Your task to perform on an android device: turn on sleep mode Image 0: 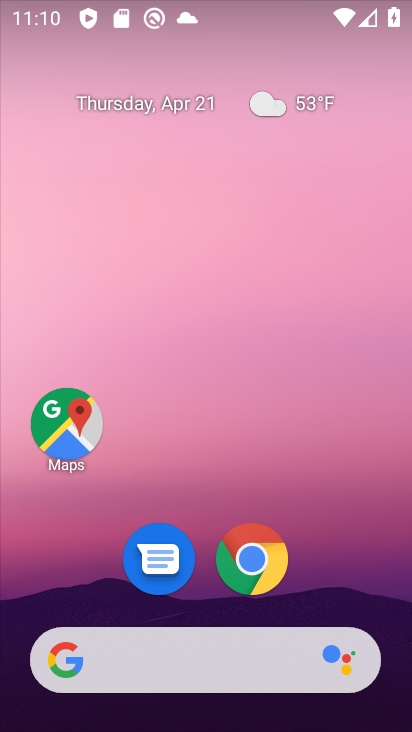
Step 0: click (251, 557)
Your task to perform on an android device: turn on sleep mode Image 1: 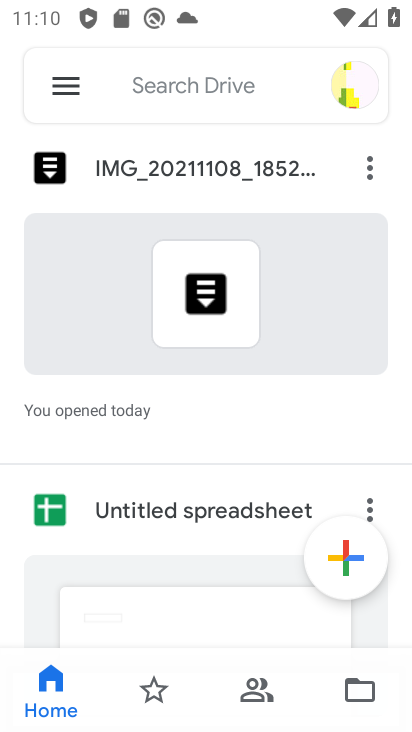
Step 1: press home button
Your task to perform on an android device: turn on sleep mode Image 2: 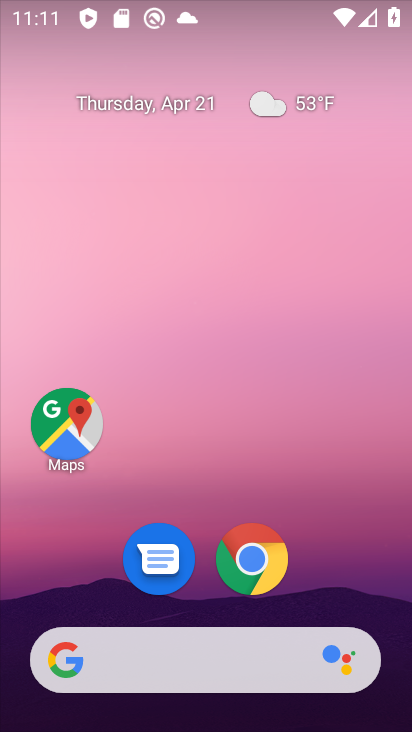
Step 2: drag from (365, 610) to (296, 16)
Your task to perform on an android device: turn on sleep mode Image 3: 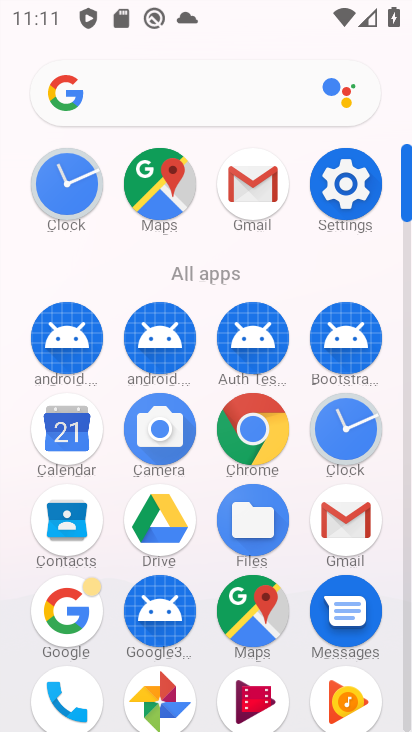
Step 3: click (341, 214)
Your task to perform on an android device: turn on sleep mode Image 4: 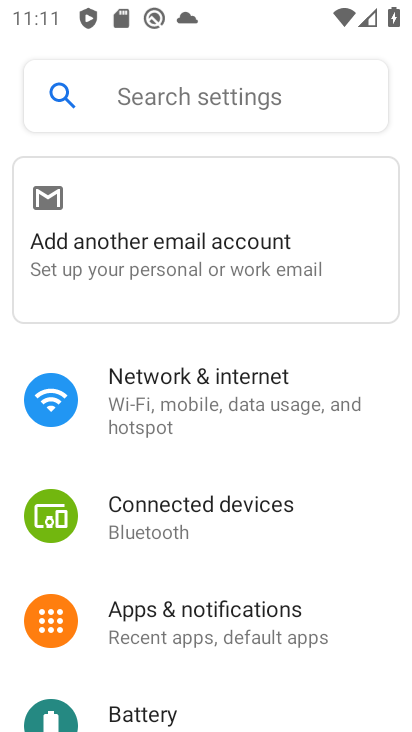
Step 4: drag from (389, 687) to (349, 175)
Your task to perform on an android device: turn on sleep mode Image 5: 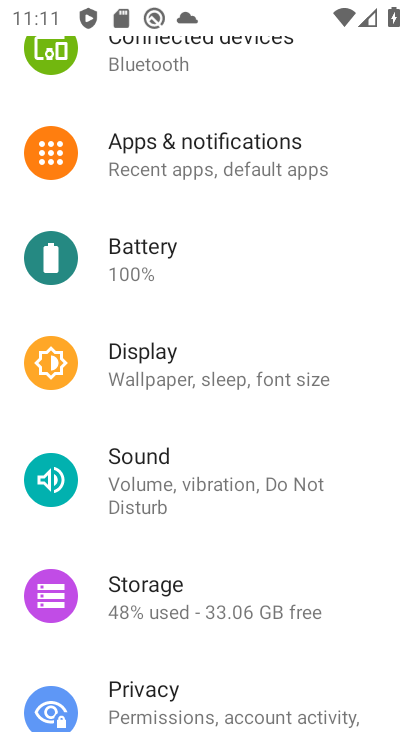
Step 5: click (168, 380)
Your task to perform on an android device: turn on sleep mode Image 6: 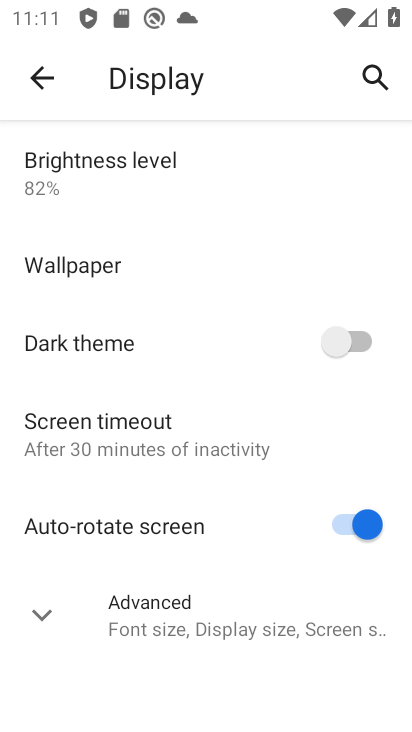
Step 6: click (37, 622)
Your task to perform on an android device: turn on sleep mode Image 7: 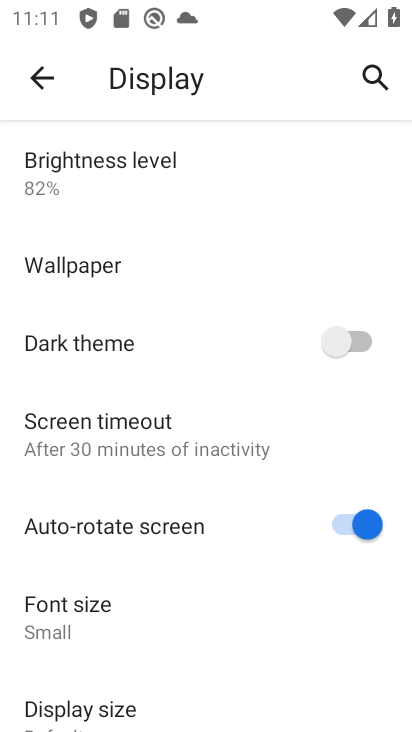
Step 7: task complete